Your task to perform on an android device: open chrome and create a bookmark for the current page Image 0: 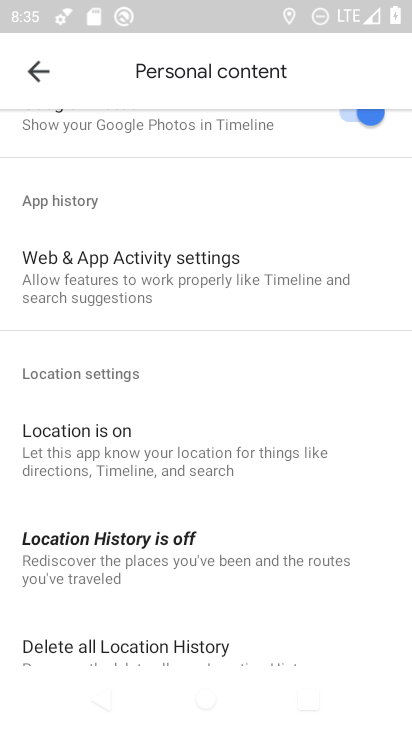
Step 0: press home button
Your task to perform on an android device: open chrome and create a bookmark for the current page Image 1: 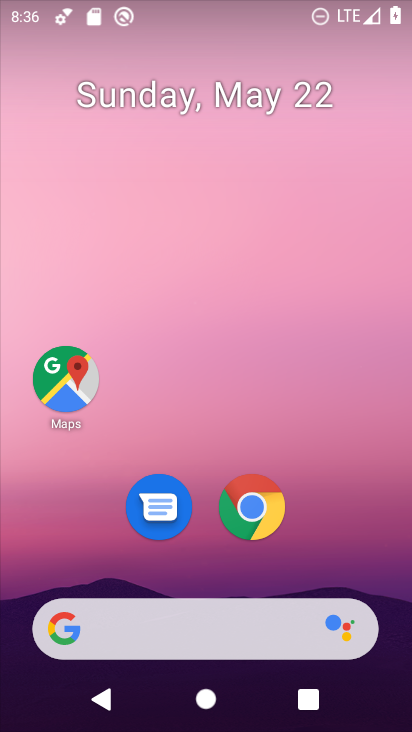
Step 1: click (235, 506)
Your task to perform on an android device: open chrome and create a bookmark for the current page Image 2: 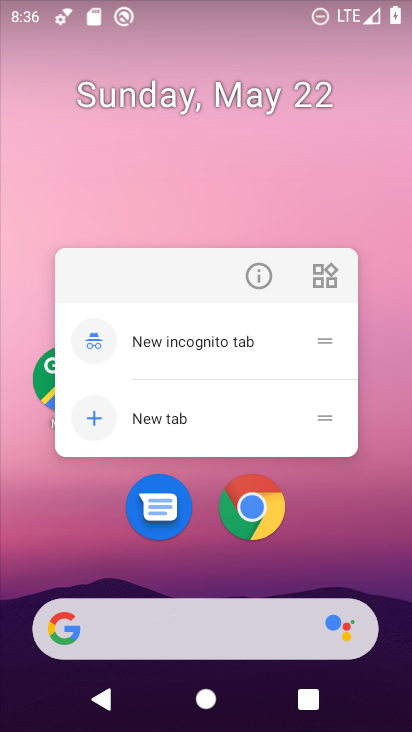
Step 2: click (257, 498)
Your task to perform on an android device: open chrome and create a bookmark for the current page Image 3: 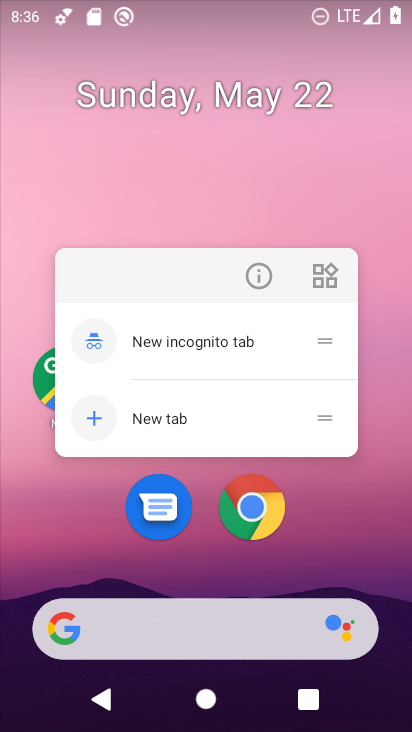
Step 3: click (257, 498)
Your task to perform on an android device: open chrome and create a bookmark for the current page Image 4: 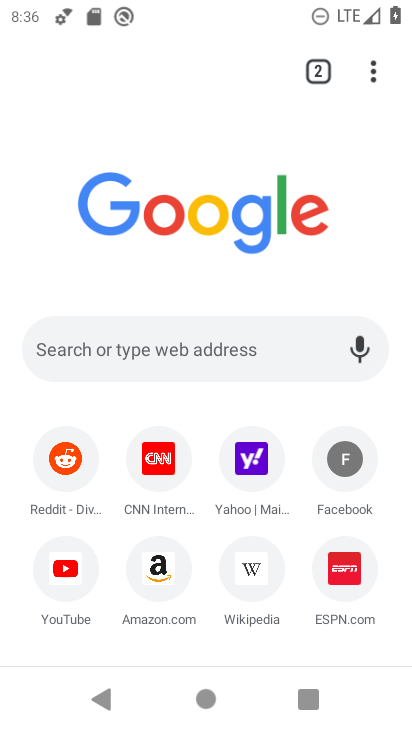
Step 4: click (375, 69)
Your task to perform on an android device: open chrome and create a bookmark for the current page Image 5: 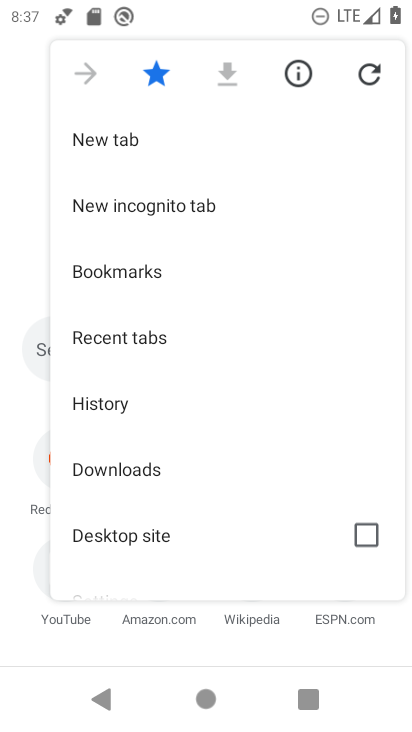
Step 5: task complete